Your task to perform on an android device: Find coffee shops on Maps Image 0: 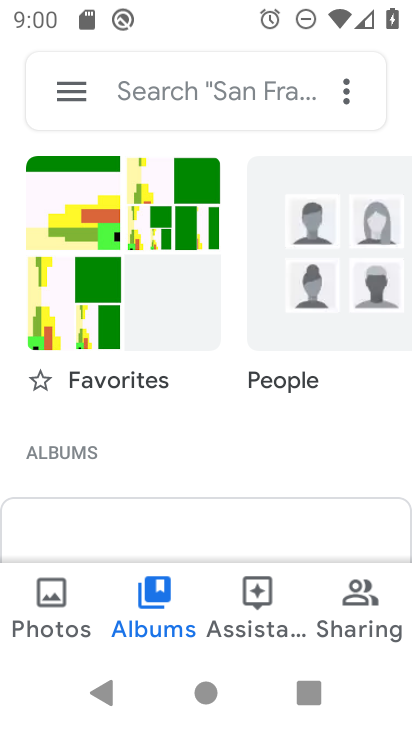
Step 0: press back button
Your task to perform on an android device: Find coffee shops on Maps Image 1: 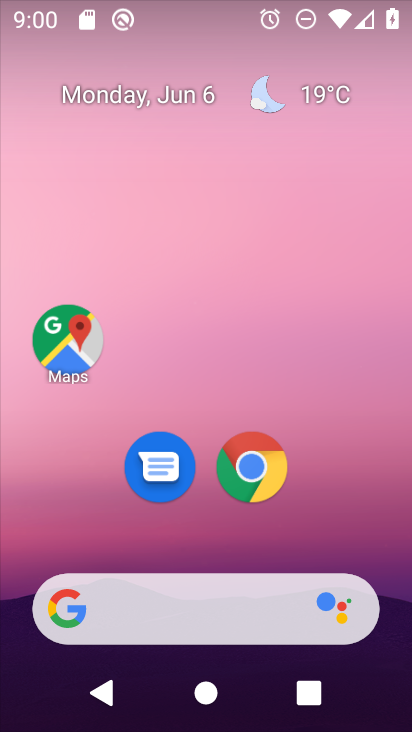
Step 1: drag from (376, 521) to (345, 259)
Your task to perform on an android device: Find coffee shops on Maps Image 2: 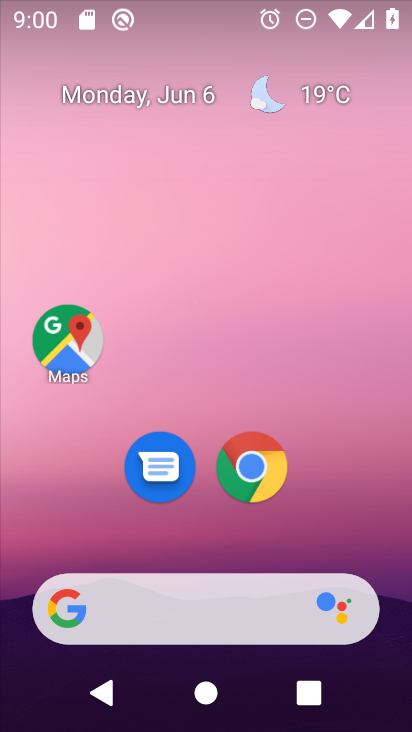
Step 2: drag from (334, 253) to (331, 31)
Your task to perform on an android device: Find coffee shops on Maps Image 3: 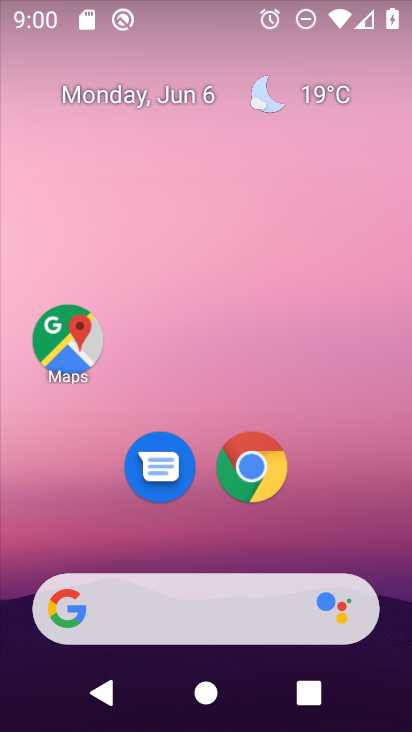
Step 3: drag from (366, 529) to (388, 30)
Your task to perform on an android device: Find coffee shops on Maps Image 4: 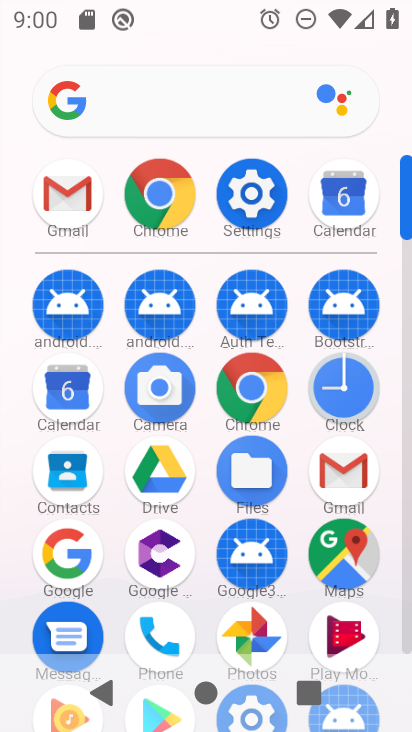
Step 4: click (346, 556)
Your task to perform on an android device: Find coffee shops on Maps Image 5: 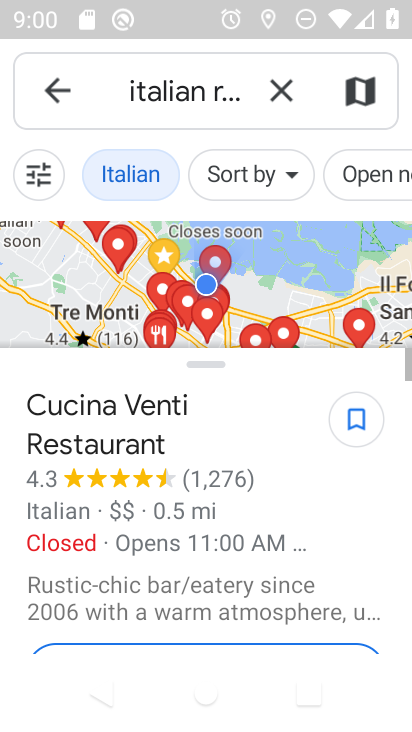
Step 5: click (282, 95)
Your task to perform on an android device: Find coffee shops on Maps Image 6: 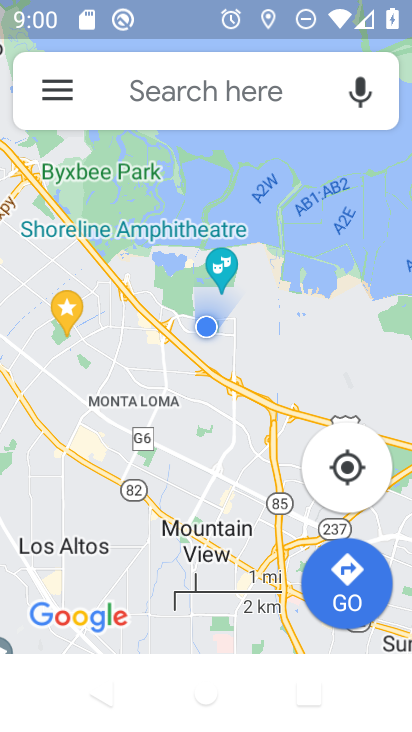
Step 6: click (246, 101)
Your task to perform on an android device: Find coffee shops on Maps Image 7: 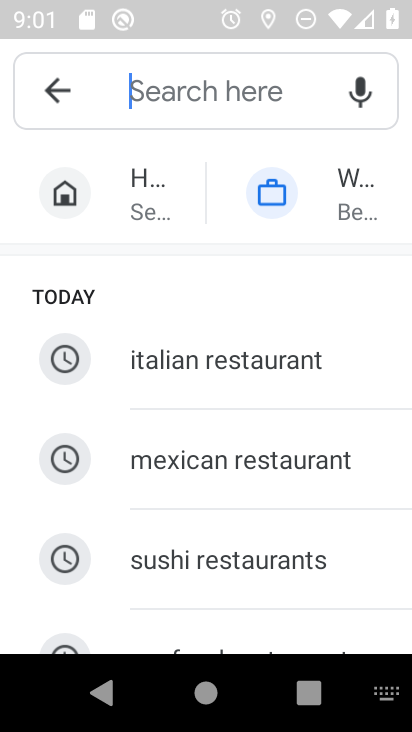
Step 7: type "coffee "
Your task to perform on an android device: Find coffee shops on Maps Image 8: 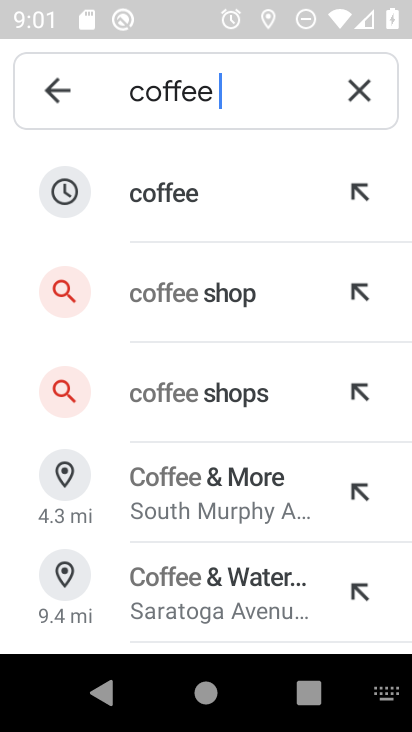
Step 8: click (202, 218)
Your task to perform on an android device: Find coffee shops on Maps Image 9: 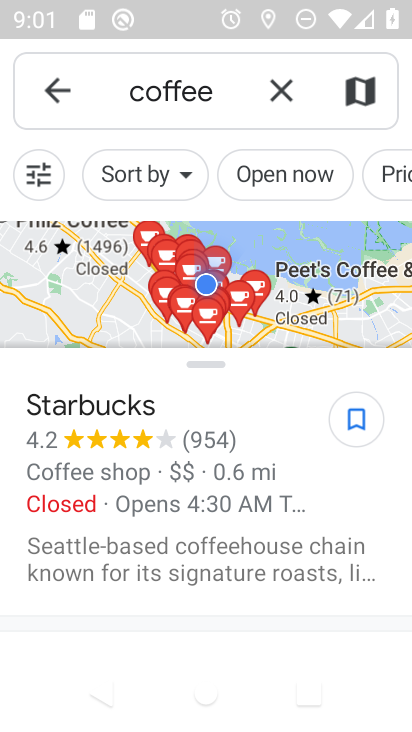
Step 9: task complete